Your task to perform on an android device: Open ESPN.com Image 0: 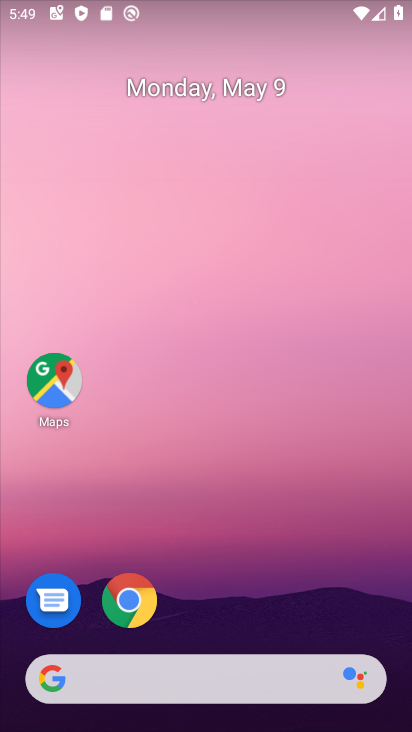
Step 0: click (143, 589)
Your task to perform on an android device: Open ESPN.com Image 1: 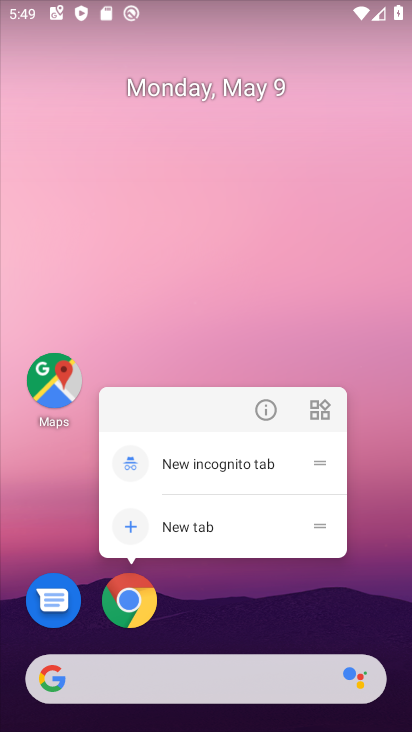
Step 1: click (134, 606)
Your task to perform on an android device: Open ESPN.com Image 2: 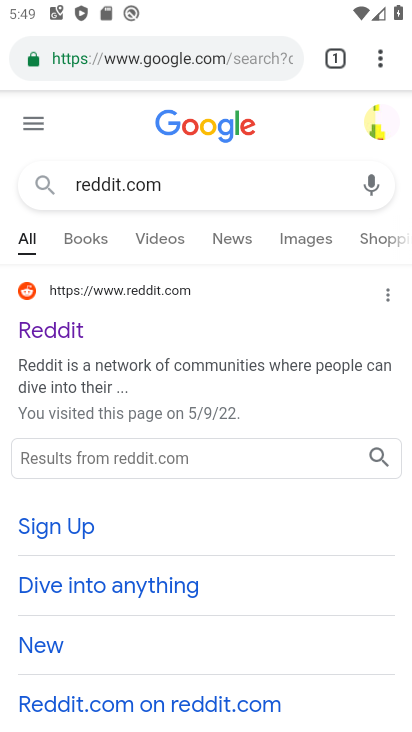
Step 2: click (179, 66)
Your task to perform on an android device: Open ESPN.com Image 3: 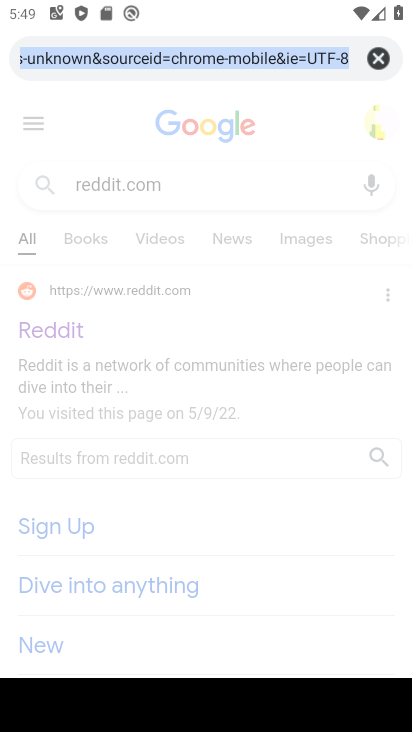
Step 3: type "ESPN.com"
Your task to perform on an android device: Open ESPN.com Image 4: 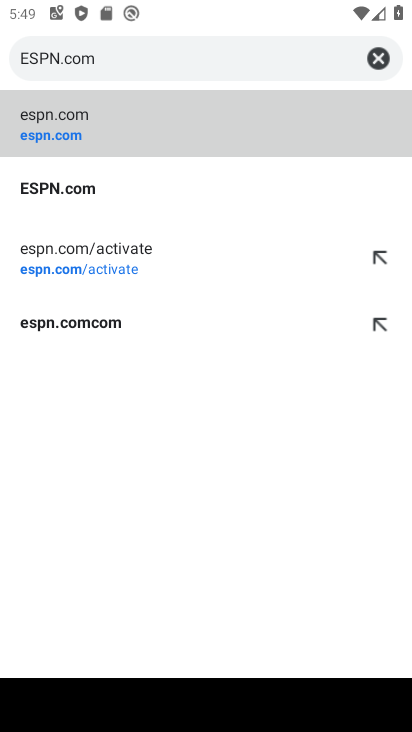
Step 4: click (121, 136)
Your task to perform on an android device: Open ESPN.com Image 5: 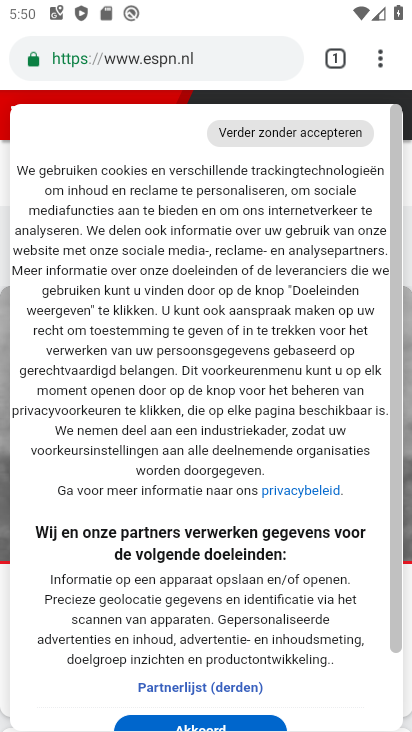
Step 5: task complete